Your task to perform on an android device: turn notification dots off Image 0: 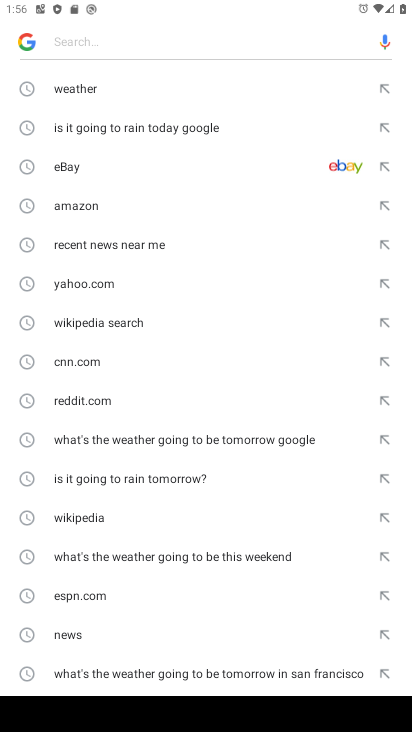
Step 0: press back button
Your task to perform on an android device: turn notification dots off Image 1: 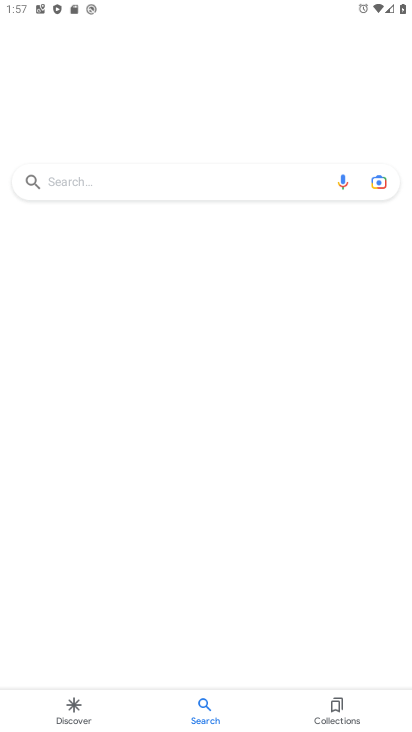
Step 1: press back button
Your task to perform on an android device: turn notification dots off Image 2: 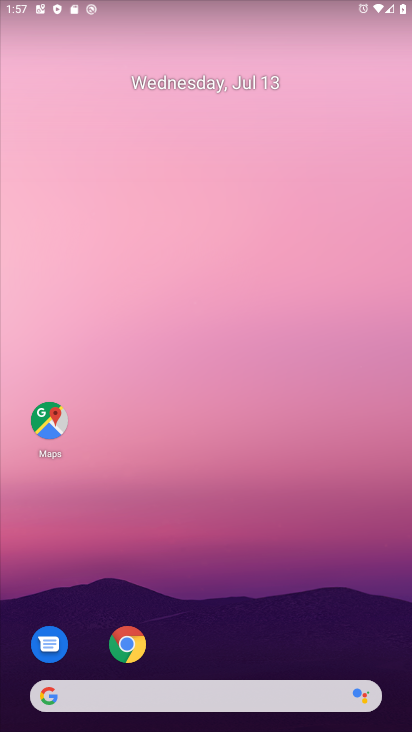
Step 2: drag from (208, 664) to (178, 61)
Your task to perform on an android device: turn notification dots off Image 3: 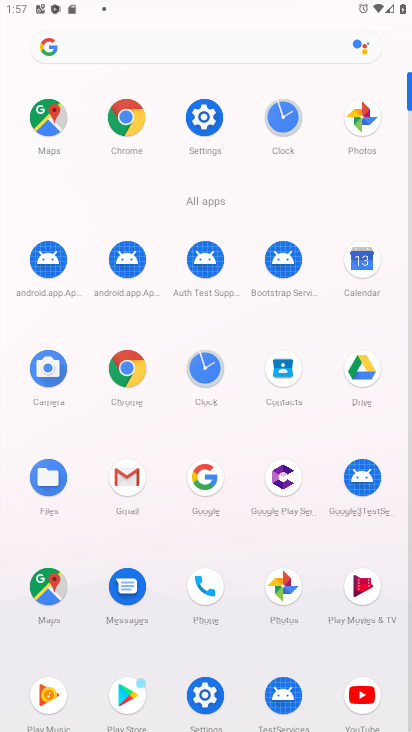
Step 3: click (205, 146)
Your task to perform on an android device: turn notification dots off Image 4: 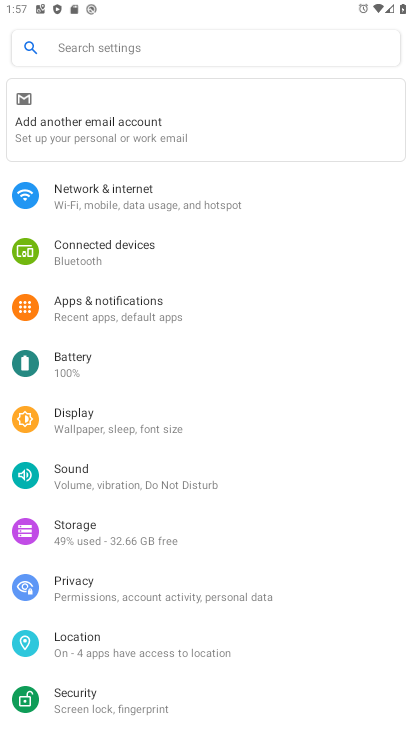
Step 4: click (78, 314)
Your task to perform on an android device: turn notification dots off Image 5: 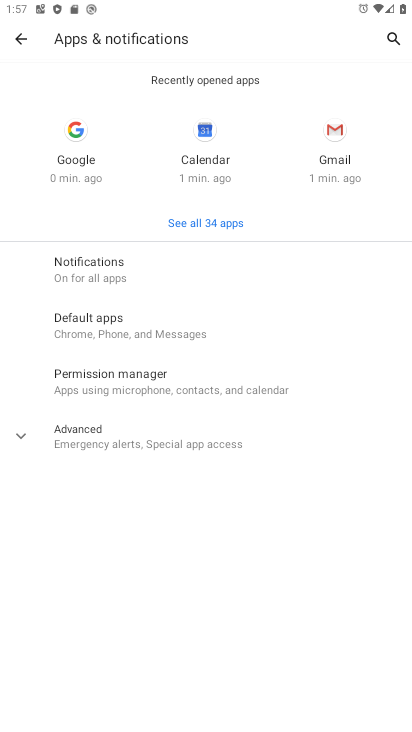
Step 5: click (86, 281)
Your task to perform on an android device: turn notification dots off Image 6: 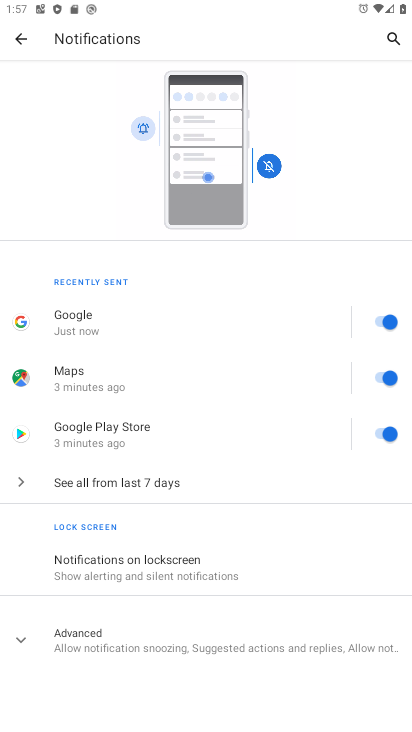
Step 6: click (127, 630)
Your task to perform on an android device: turn notification dots off Image 7: 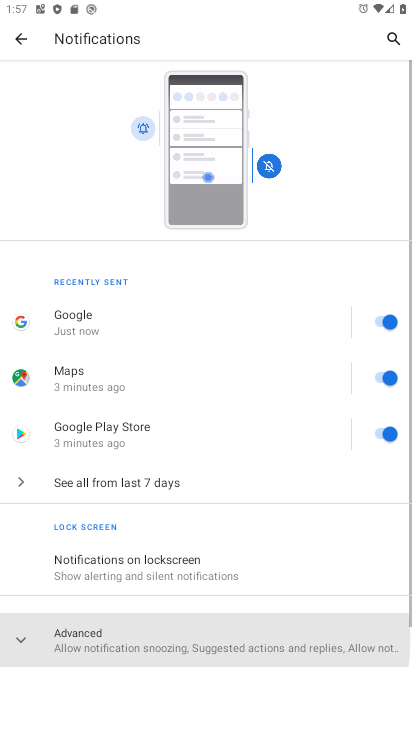
Step 7: drag from (127, 630) to (77, 211)
Your task to perform on an android device: turn notification dots off Image 8: 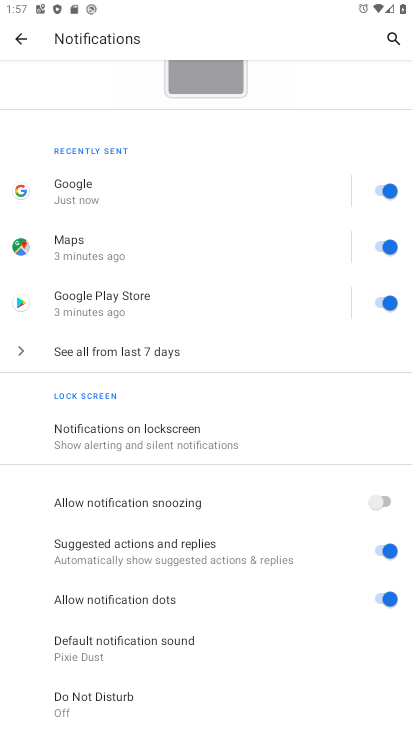
Step 8: click (378, 603)
Your task to perform on an android device: turn notification dots off Image 9: 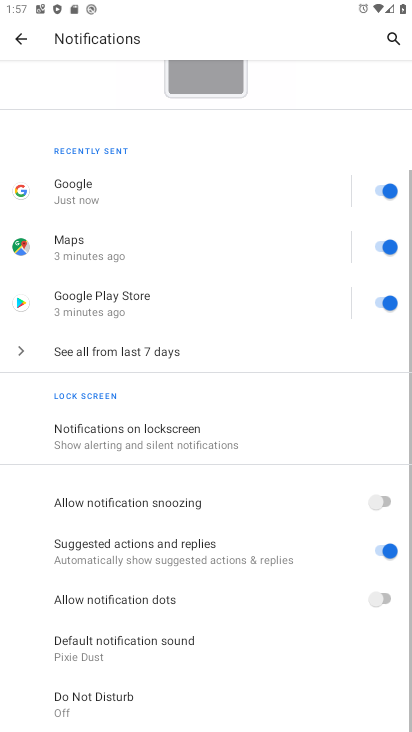
Step 9: task complete